Your task to perform on an android device: Open location settings Image 0: 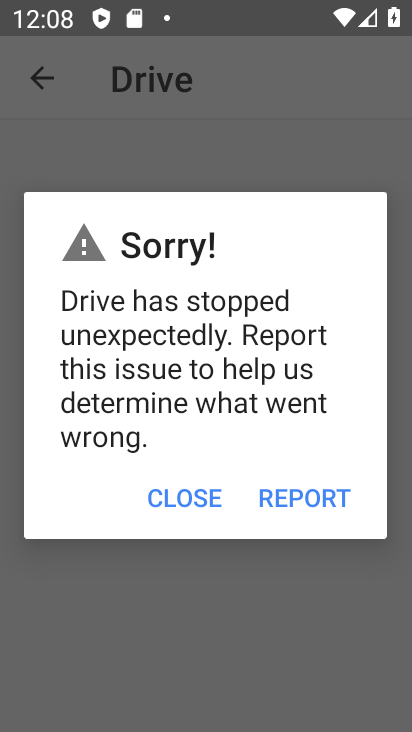
Step 0: press home button
Your task to perform on an android device: Open location settings Image 1: 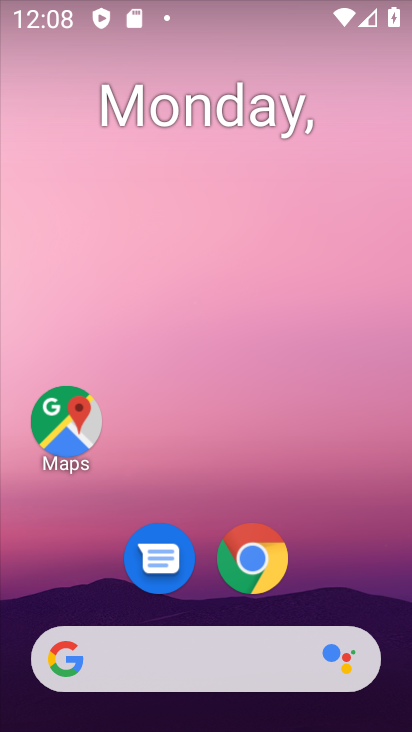
Step 1: drag from (362, 588) to (360, 162)
Your task to perform on an android device: Open location settings Image 2: 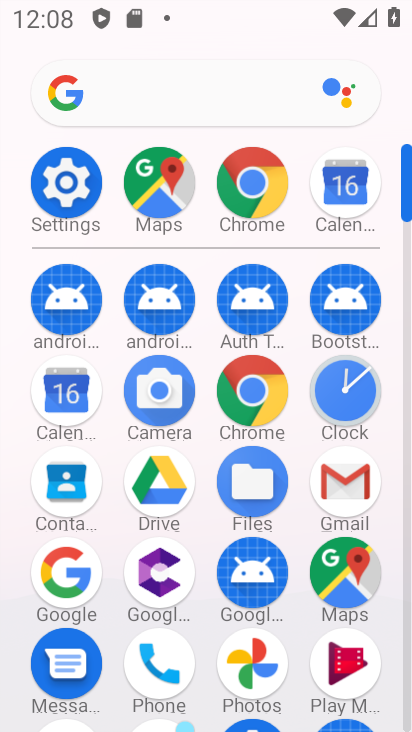
Step 2: click (53, 180)
Your task to perform on an android device: Open location settings Image 3: 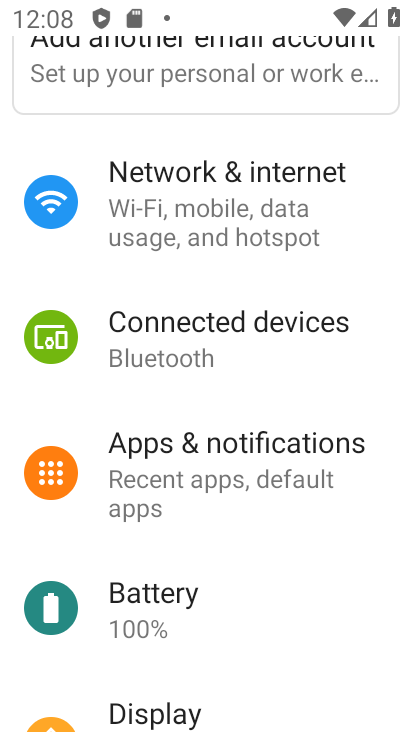
Step 3: drag from (365, 642) to (358, 465)
Your task to perform on an android device: Open location settings Image 4: 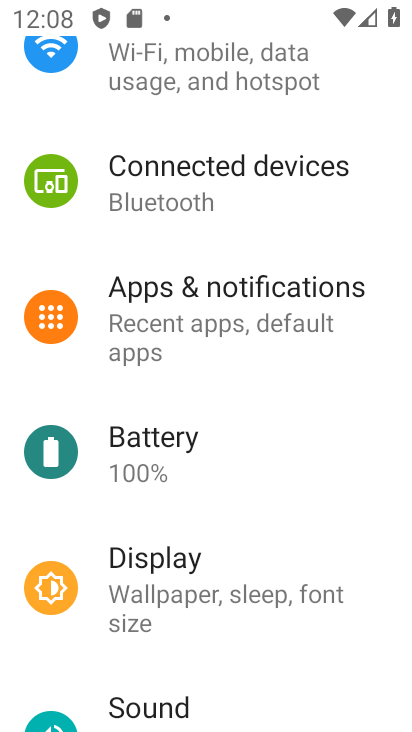
Step 4: drag from (359, 654) to (359, 494)
Your task to perform on an android device: Open location settings Image 5: 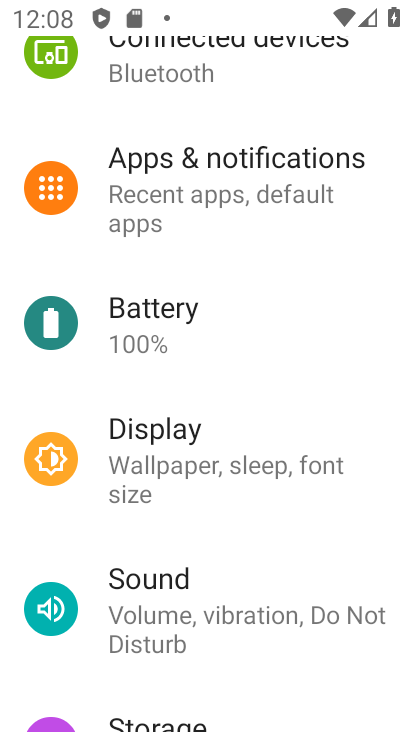
Step 5: drag from (328, 659) to (325, 446)
Your task to perform on an android device: Open location settings Image 6: 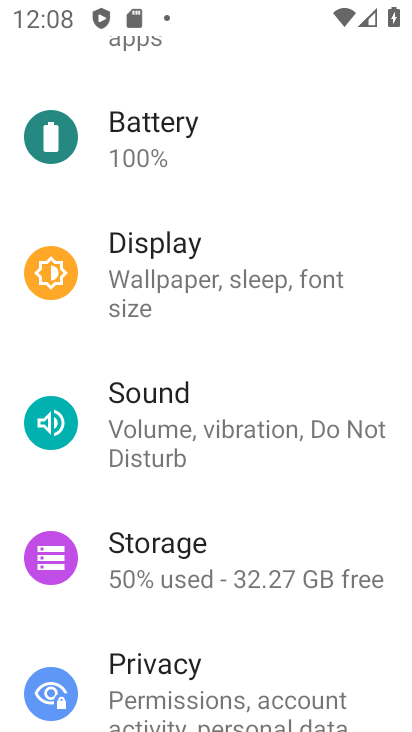
Step 6: drag from (305, 654) to (305, 473)
Your task to perform on an android device: Open location settings Image 7: 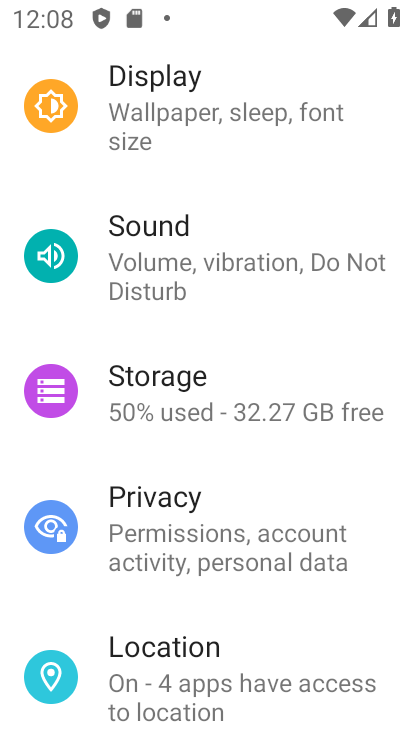
Step 7: click (295, 682)
Your task to perform on an android device: Open location settings Image 8: 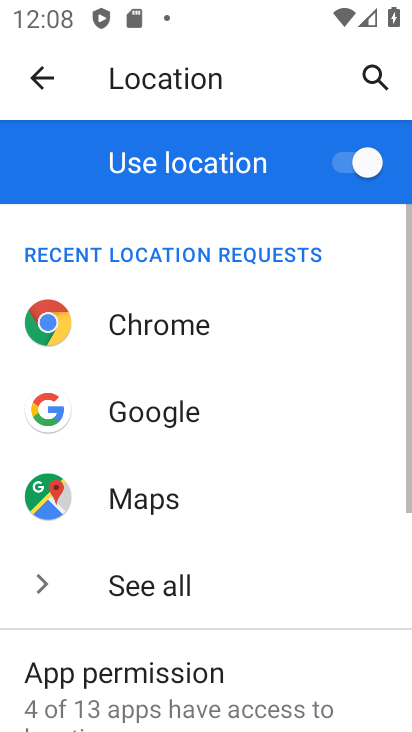
Step 8: task complete